Your task to perform on an android device: When is my next appointment? Image 0: 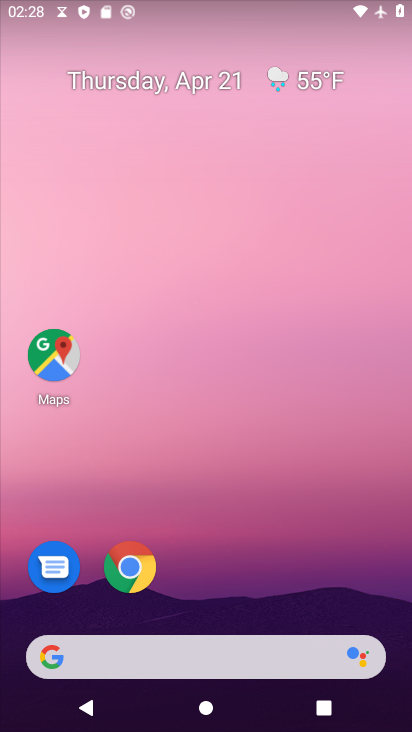
Step 0: press home button
Your task to perform on an android device: When is my next appointment? Image 1: 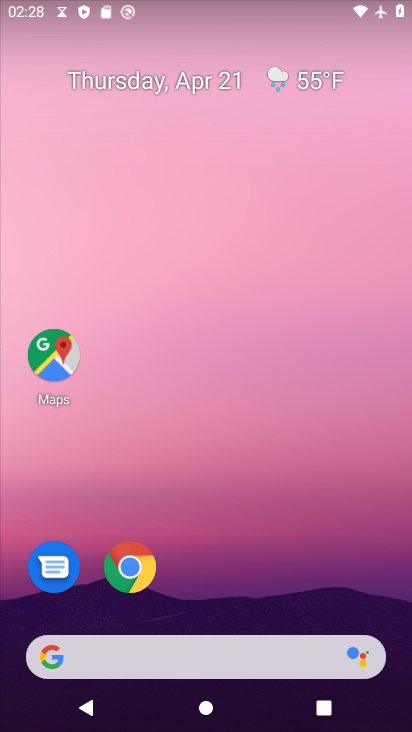
Step 1: drag from (153, 649) to (314, 101)
Your task to perform on an android device: When is my next appointment? Image 2: 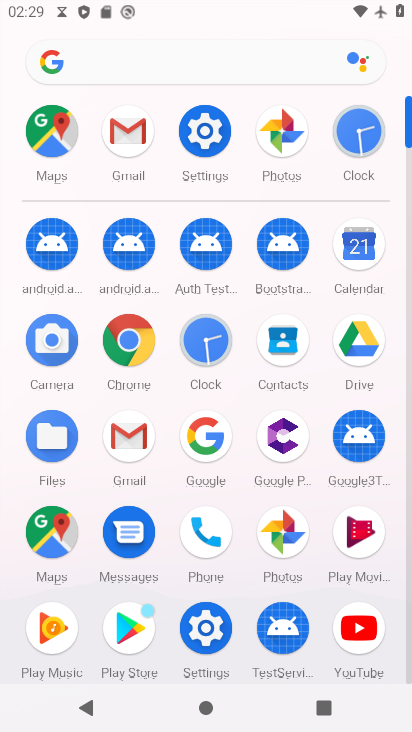
Step 2: click (364, 251)
Your task to perform on an android device: When is my next appointment? Image 3: 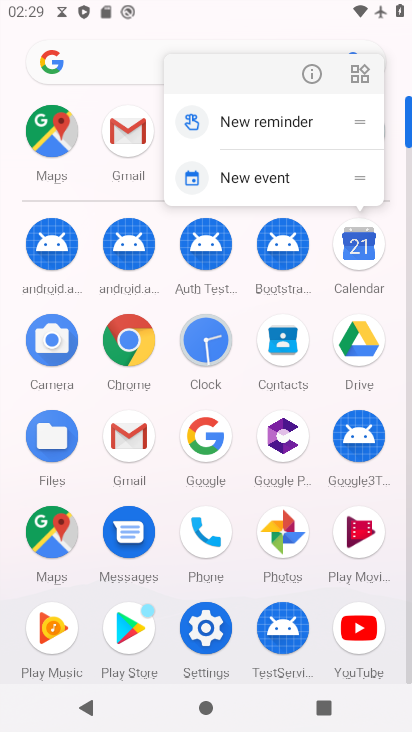
Step 3: click (355, 256)
Your task to perform on an android device: When is my next appointment? Image 4: 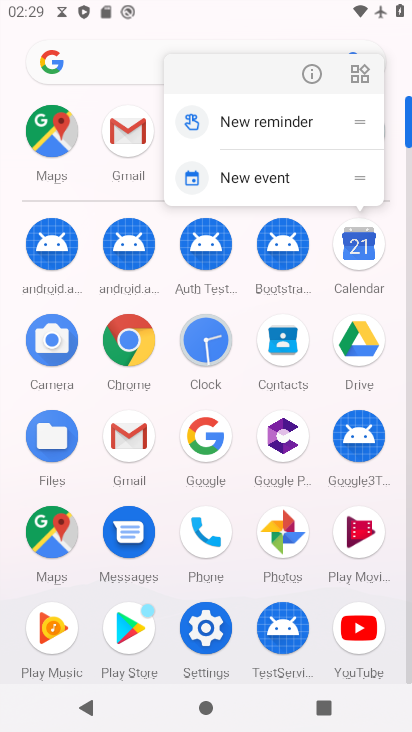
Step 4: click (360, 252)
Your task to perform on an android device: When is my next appointment? Image 5: 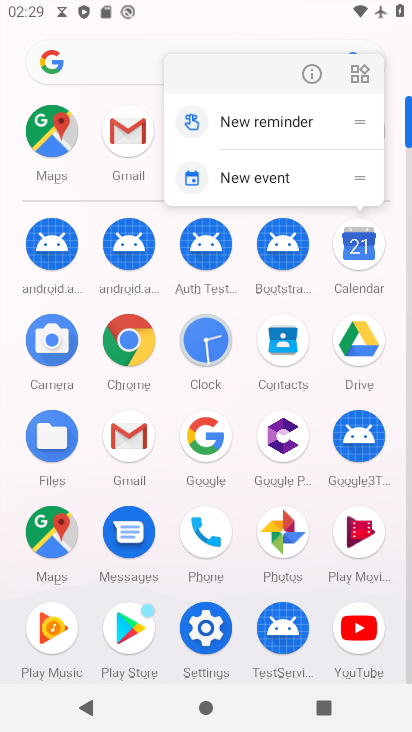
Step 5: click (366, 254)
Your task to perform on an android device: When is my next appointment? Image 6: 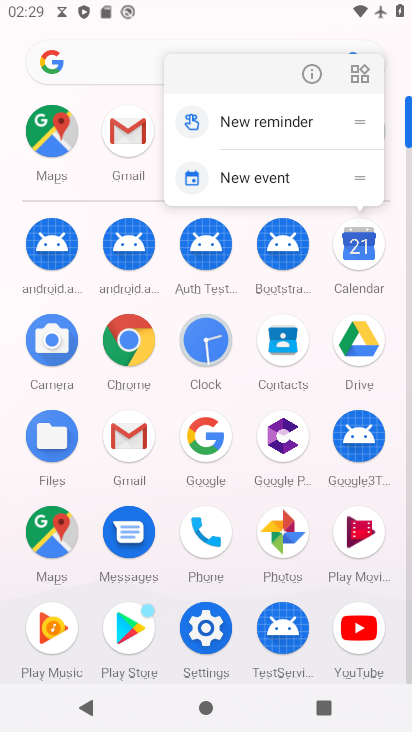
Step 6: click (356, 257)
Your task to perform on an android device: When is my next appointment? Image 7: 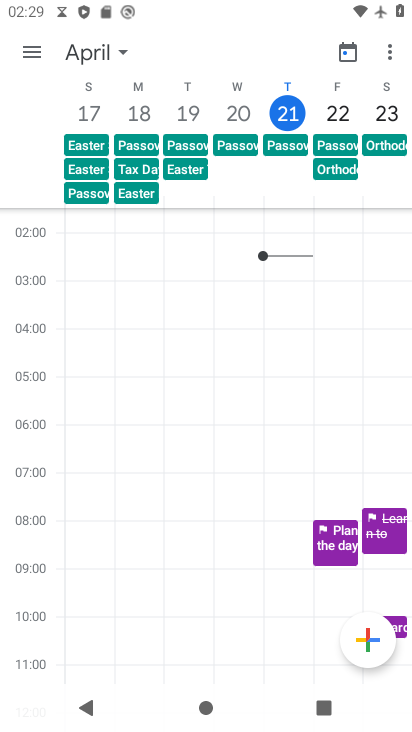
Step 7: click (33, 48)
Your task to perform on an android device: When is my next appointment? Image 8: 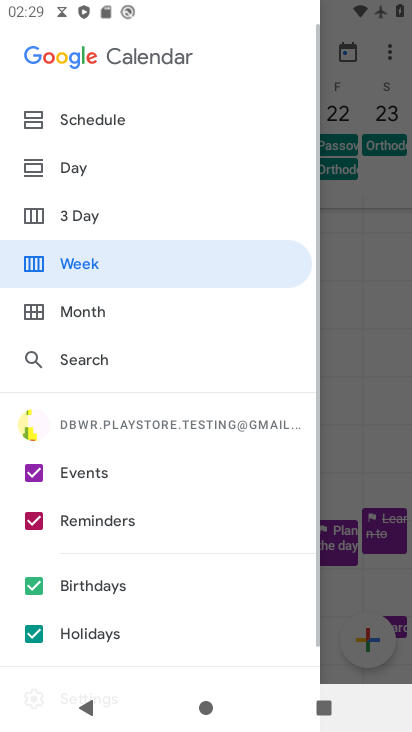
Step 8: click (70, 123)
Your task to perform on an android device: When is my next appointment? Image 9: 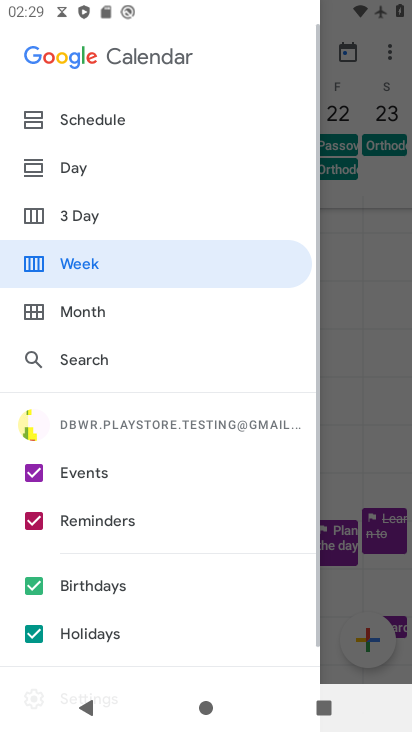
Step 9: click (105, 114)
Your task to perform on an android device: When is my next appointment? Image 10: 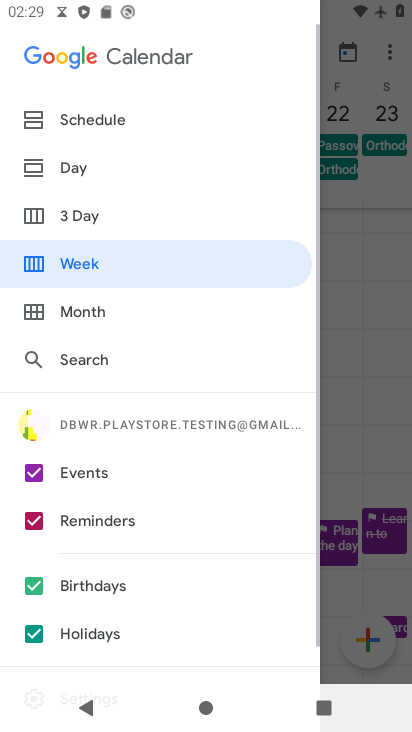
Step 10: click (100, 118)
Your task to perform on an android device: When is my next appointment? Image 11: 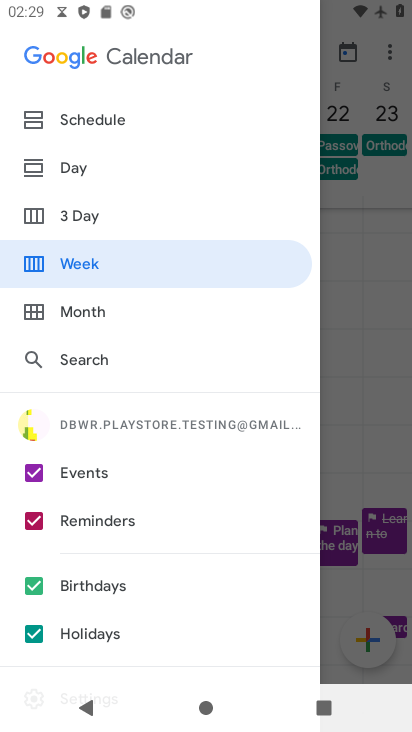
Step 11: click (78, 170)
Your task to perform on an android device: When is my next appointment? Image 12: 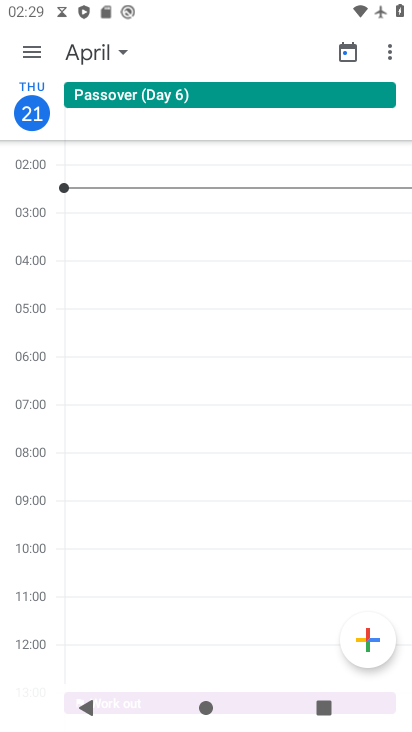
Step 12: click (32, 49)
Your task to perform on an android device: When is my next appointment? Image 13: 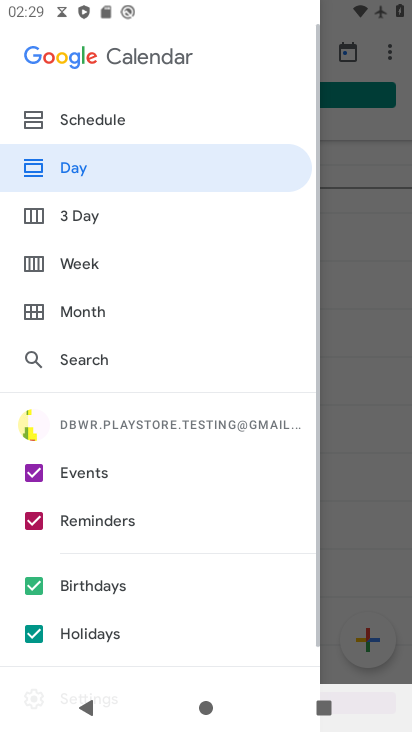
Step 13: click (99, 118)
Your task to perform on an android device: When is my next appointment? Image 14: 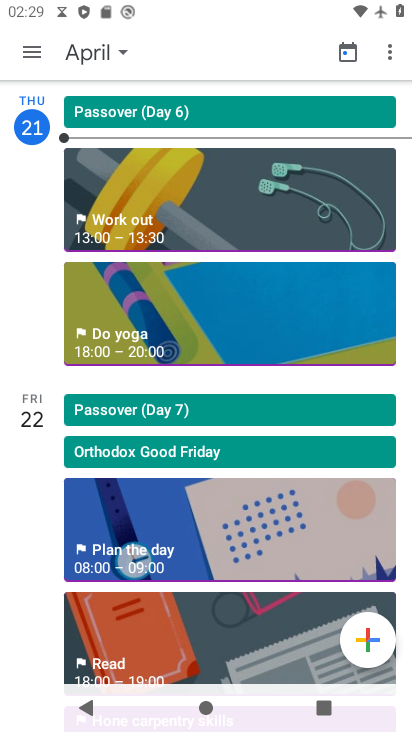
Step 14: task complete